Your task to perform on an android device: open chrome privacy settings Image 0: 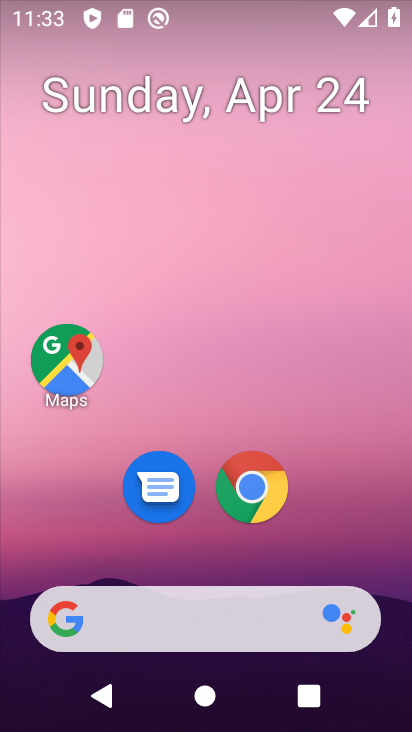
Step 0: drag from (392, 599) to (315, 102)
Your task to perform on an android device: open chrome privacy settings Image 1: 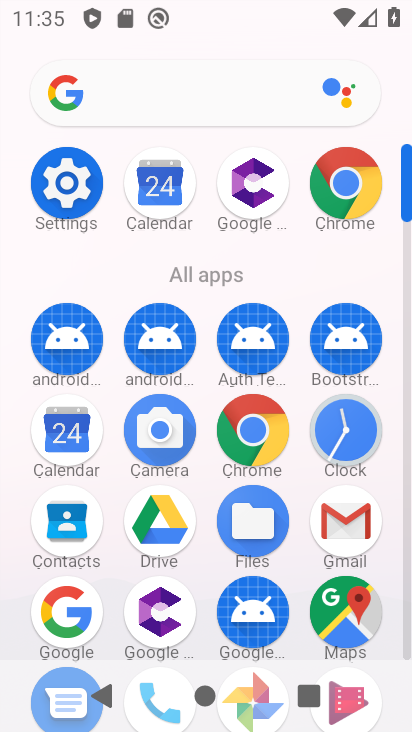
Step 1: click (271, 433)
Your task to perform on an android device: open chrome privacy settings Image 2: 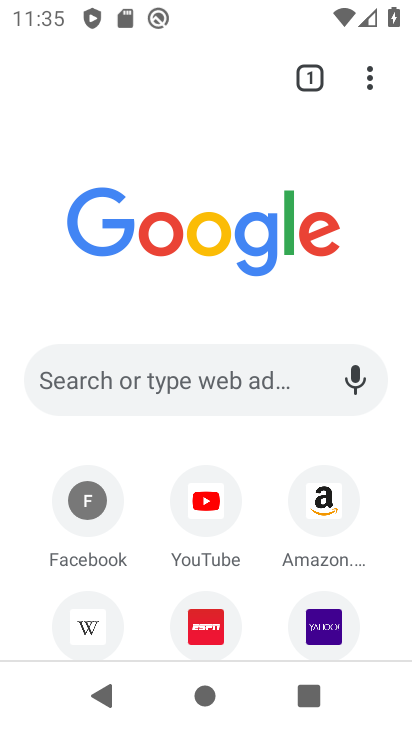
Step 2: click (369, 75)
Your task to perform on an android device: open chrome privacy settings Image 3: 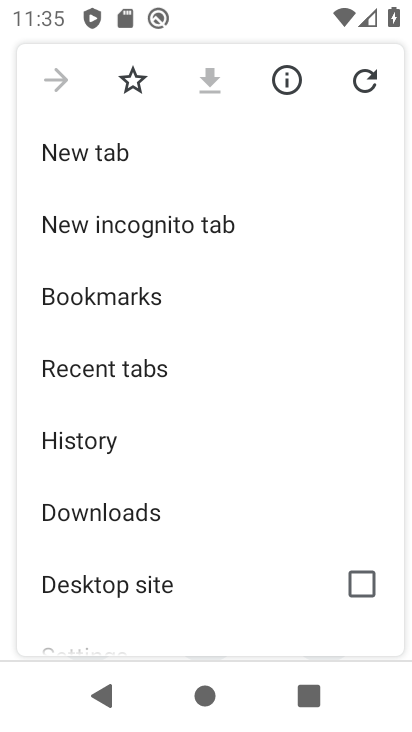
Step 3: drag from (207, 618) to (236, 183)
Your task to perform on an android device: open chrome privacy settings Image 4: 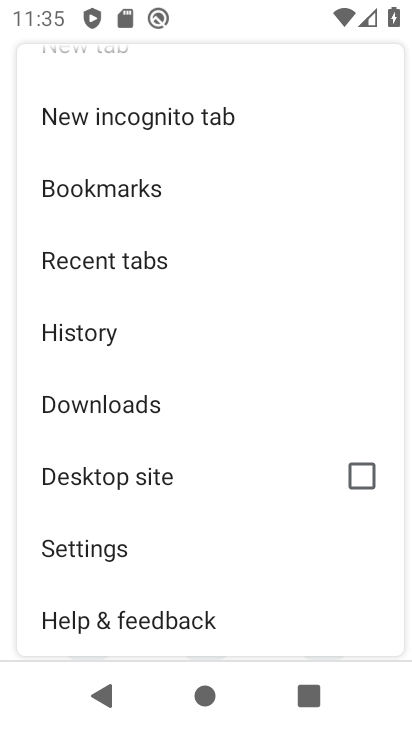
Step 4: drag from (121, 552) to (221, 105)
Your task to perform on an android device: open chrome privacy settings Image 5: 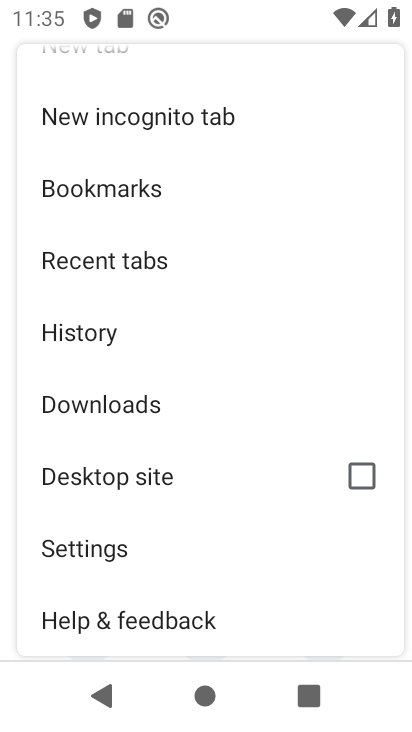
Step 5: click (109, 542)
Your task to perform on an android device: open chrome privacy settings Image 6: 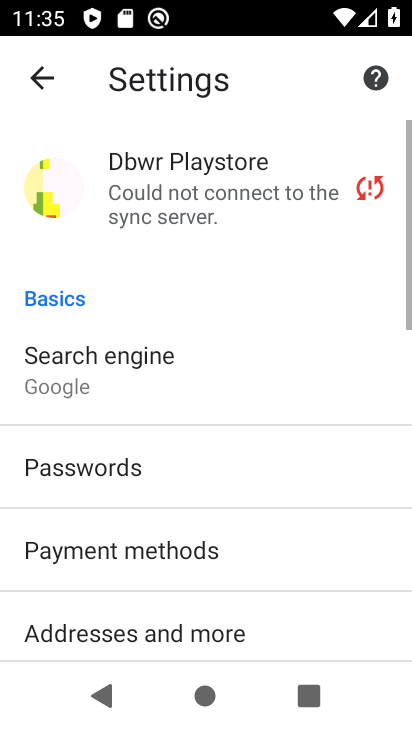
Step 6: drag from (172, 559) to (273, 103)
Your task to perform on an android device: open chrome privacy settings Image 7: 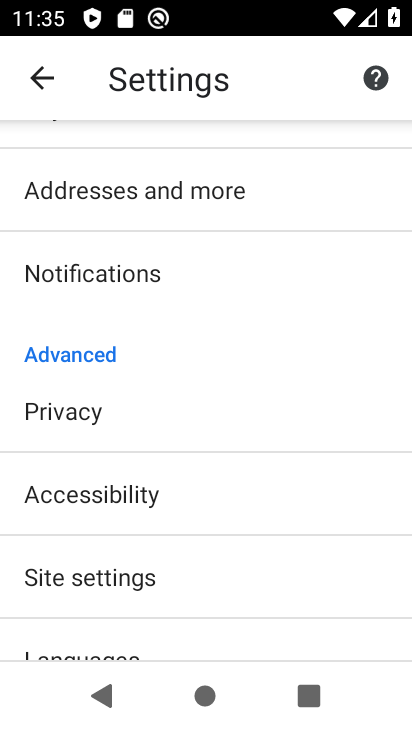
Step 7: click (119, 430)
Your task to perform on an android device: open chrome privacy settings Image 8: 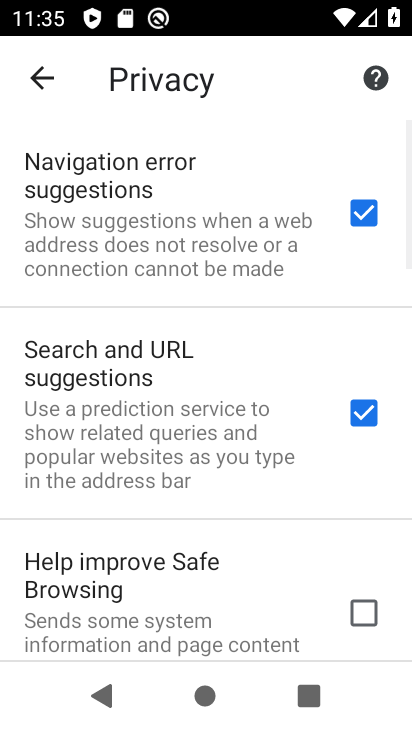
Step 8: task complete